Your task to perform on an android device: change the clock display to show seconds Image 0: 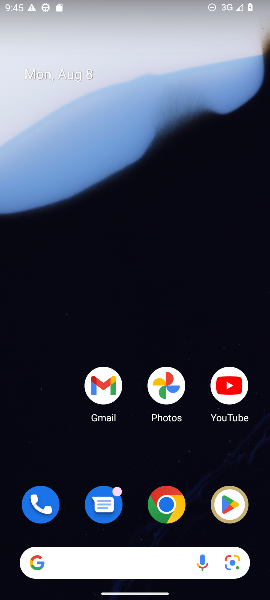
Step 0: drag from (147, 467) to (167, 38)
Your task to perform on an android device: change the clock display to show seconds Image 1: 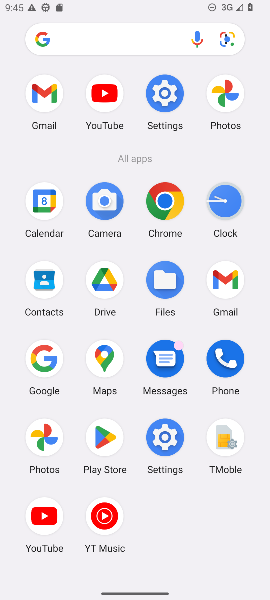
Step 1: drag from (167, 216) to (133, 60)
Your task to perform on an android device: change the clock display to show seconds Image 2: 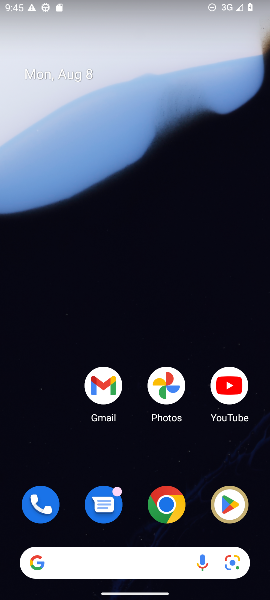
Step 2: drag from (133, 434) to (167, 47)
Your task to perform on an android device: change the clock display to show seconds Image 3: 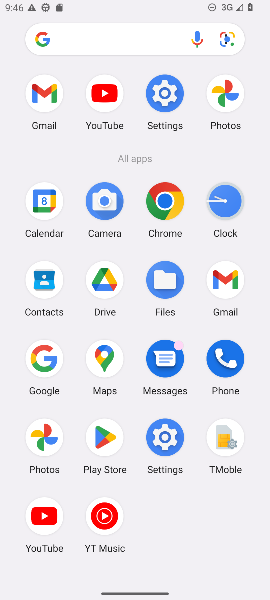
Step 3: click (231, 202)
Your task to perform on an android device: change the clock display to show seconds Image 4: 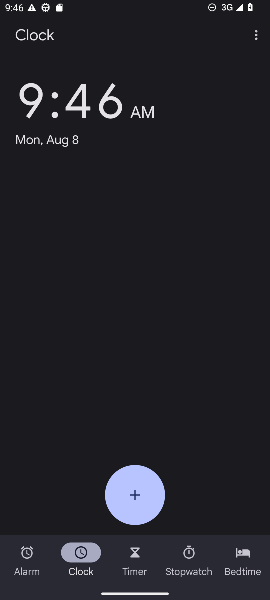
Step 4: click (257, 38)
Your task to perform on an android device: change the clock display to show seconds Image 5: 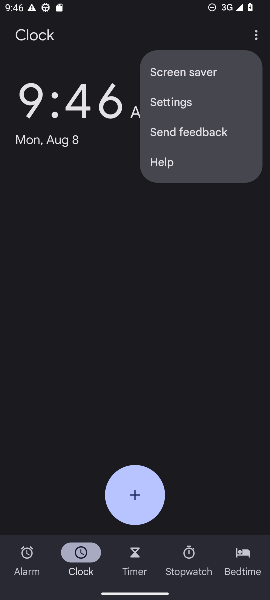
Step 5: click (174, 99)
Your task to perform on an android device: change the clock display to show seconds Image 6: 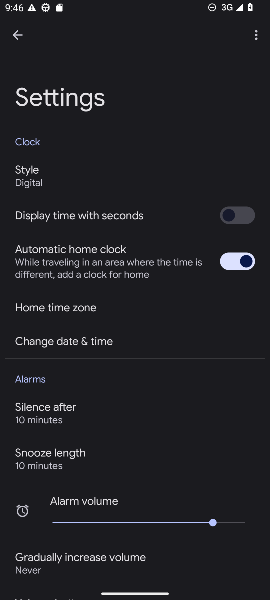
Step 6: click (50, 182)
Your task to perform on an android device: change the clock display to show seconds Image 7: 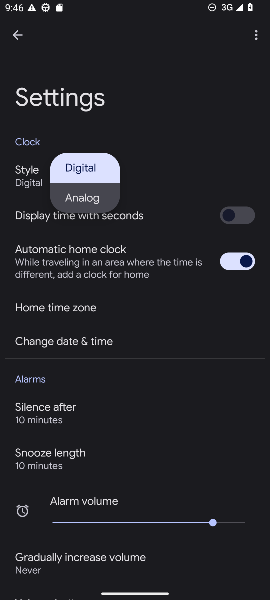
Step 7: click (73, 204)
Your task to perform on an android device: change the clock display to show seconds Image 8: 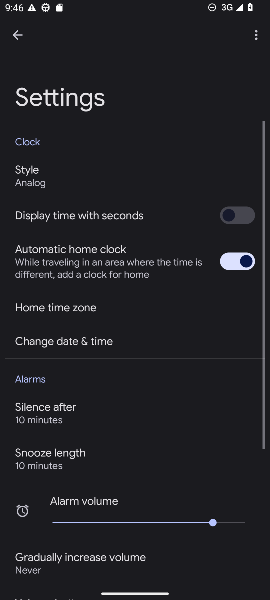
Step 8: click (261, 212)
Your task to perform on an android device: change the clock display to show seconds Image 9: 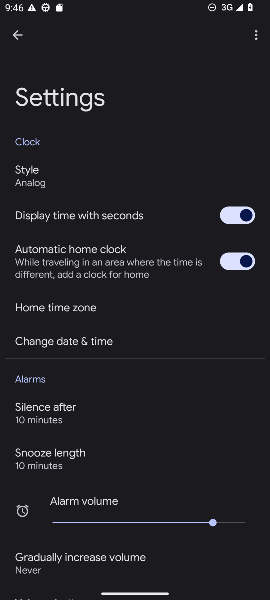
Step 9: task complete